Your task to perform on an android device: check battery use Image 0: 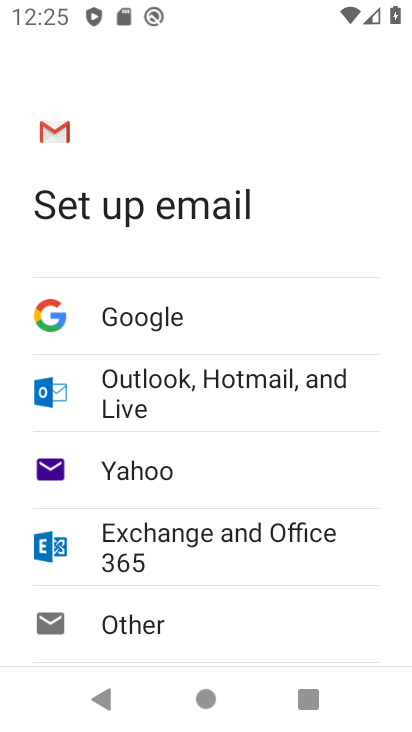
Step 0: press home button
Your task to perform on an android device: check battery use Image 1: 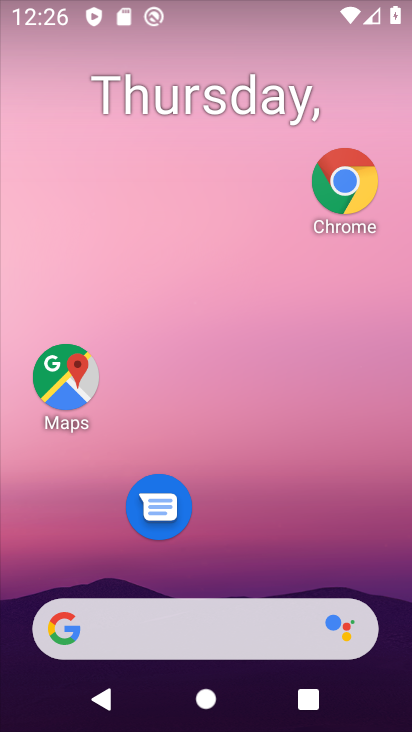
Step 1: drag from (183, 598) to (93, 140)
Your task to perform on an android device: check battery use Image 2: 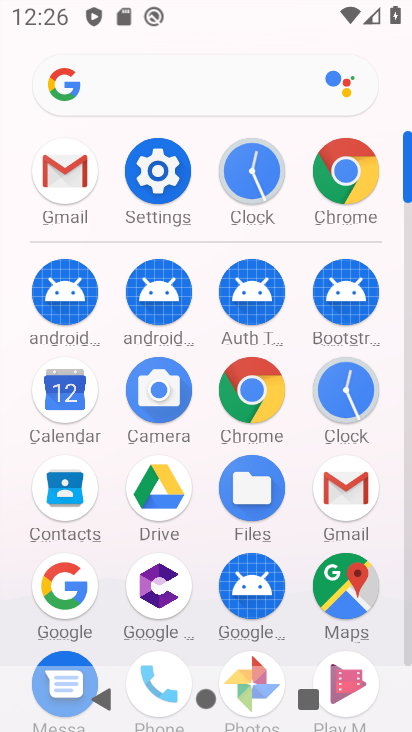
Step 2: click (158, 185)
Your task to perform on an android device: check battery use Image 3: 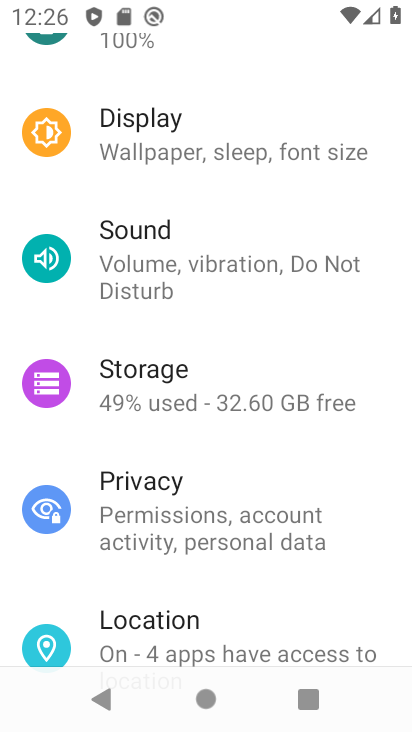
Step 3: drag from (177, 284) to (148, 561)
Your task to perform on an android device: check battery use Image 4: 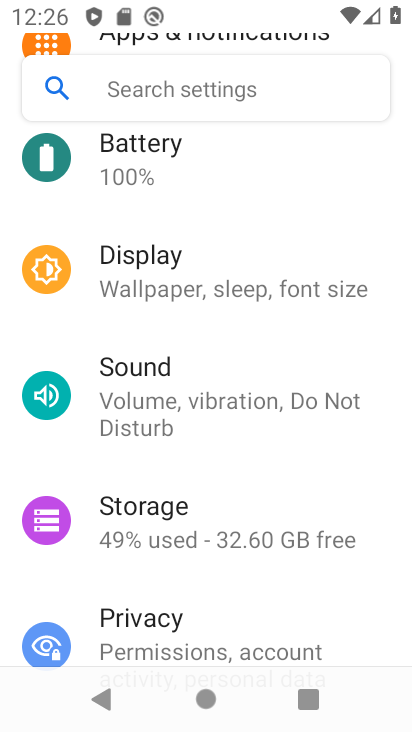
Step 4: click (178, 188)
Your task to perform on an android device: check battery use Image 5: 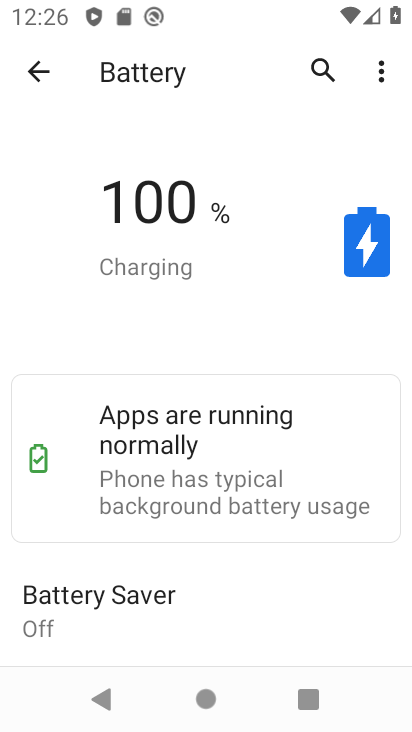
Step 5: task complete